Your task to perform on an android device: Show me the alarms in the clock app Image 0: 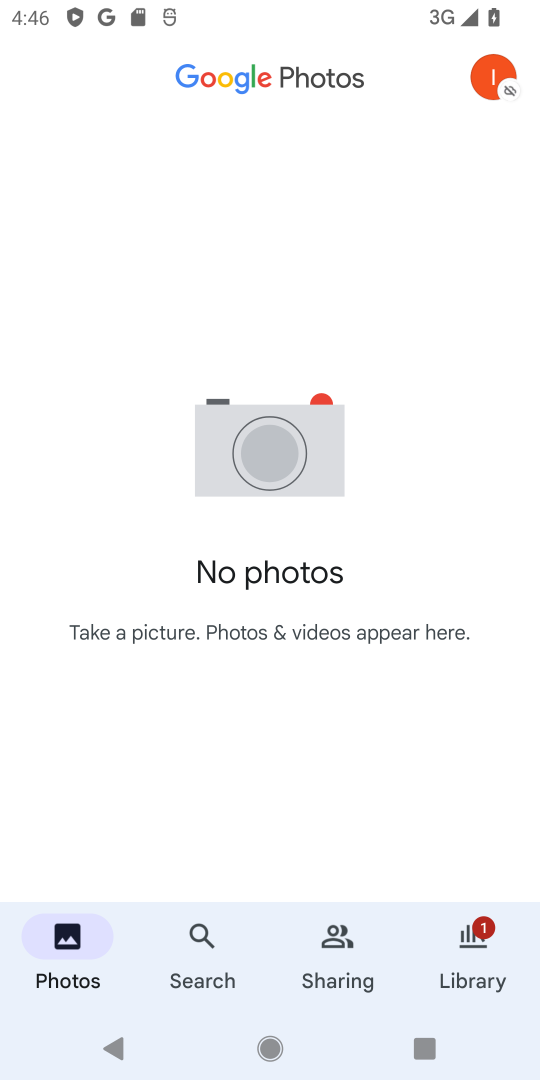
Step 0: press home button
Your task to perform on an android device: Show me the alarms in the clock app Image 1: 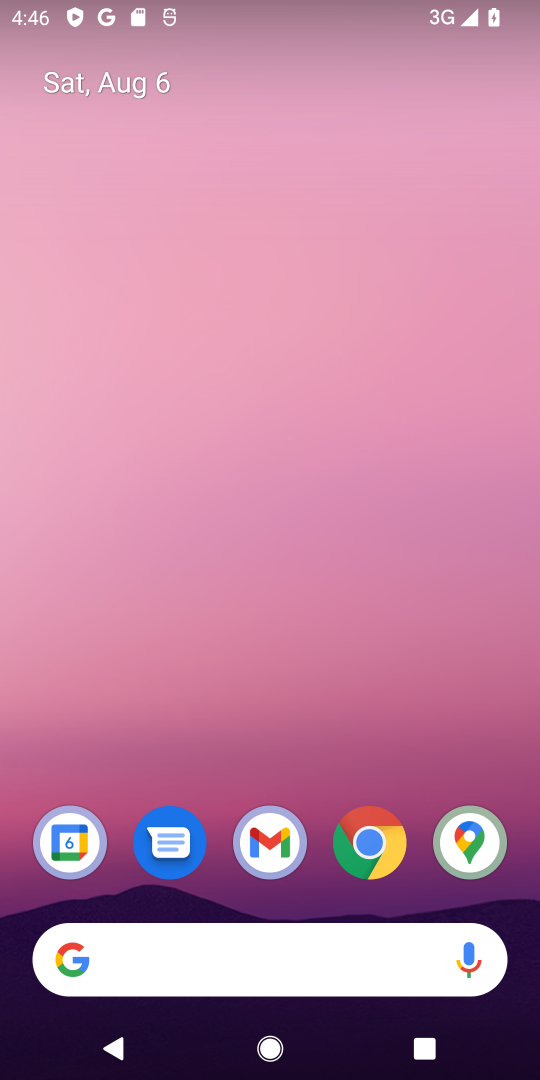
Step 1: drag from (513, 998) to (405, 271)
Your task to perform on an android device: Show me the alarms in the clock app Image 2: 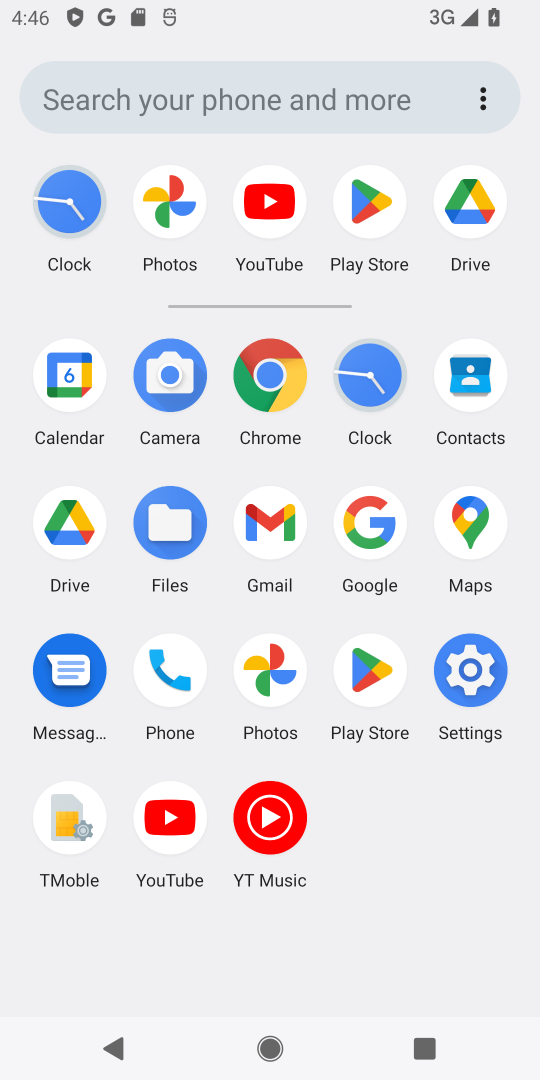
Step 2: click (375, 383)
Your task to perform on an android device: Show me the alarms in the clock app Image 3: 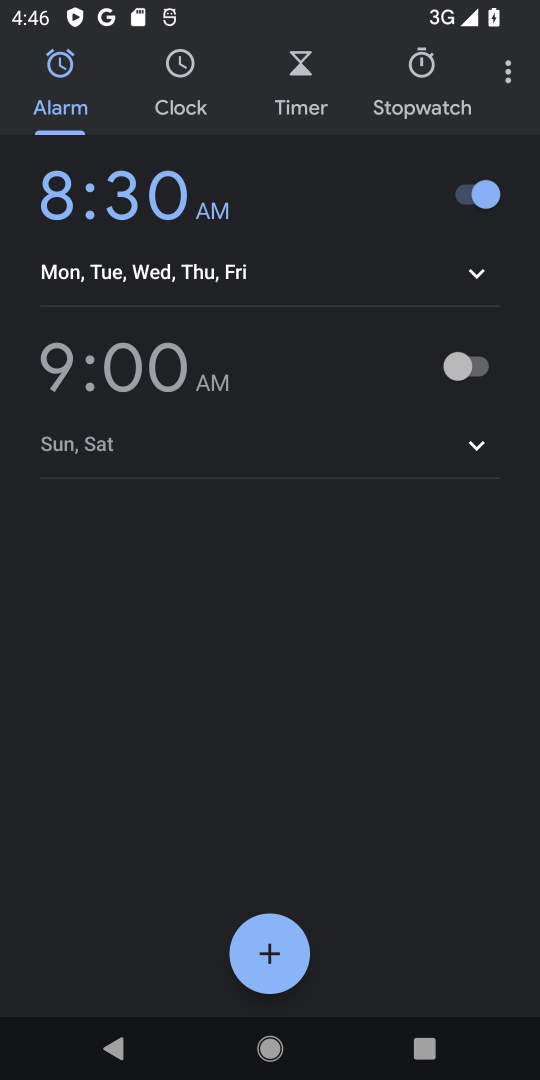
Step 3: click (511, 72)
Your task to perform on an android device: Show me the alarms in the clock app Image 4: 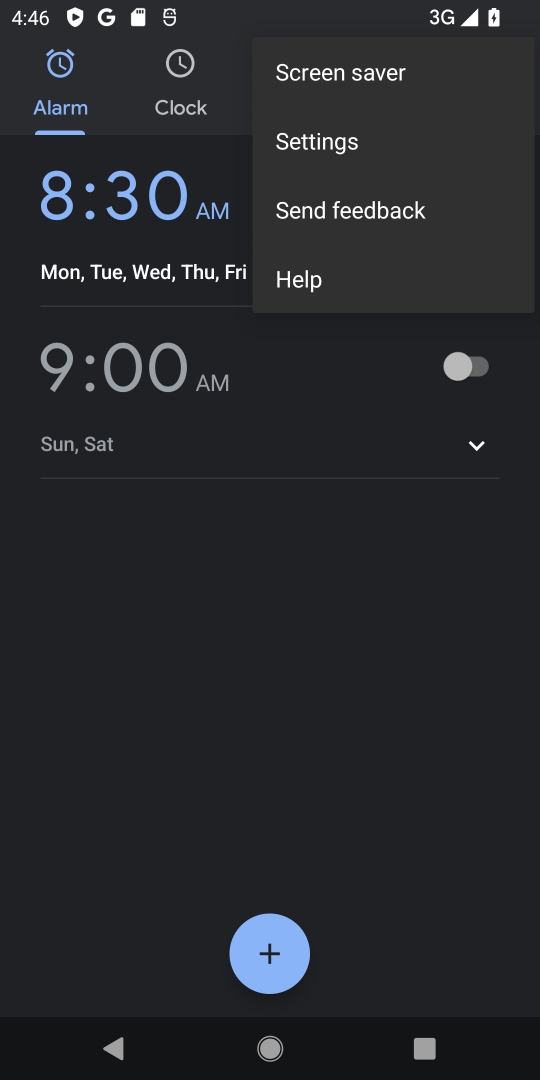
Step 4: click (313, 147)
Your task to perform on an android device: Show me the alarms in the clock app Image 5: 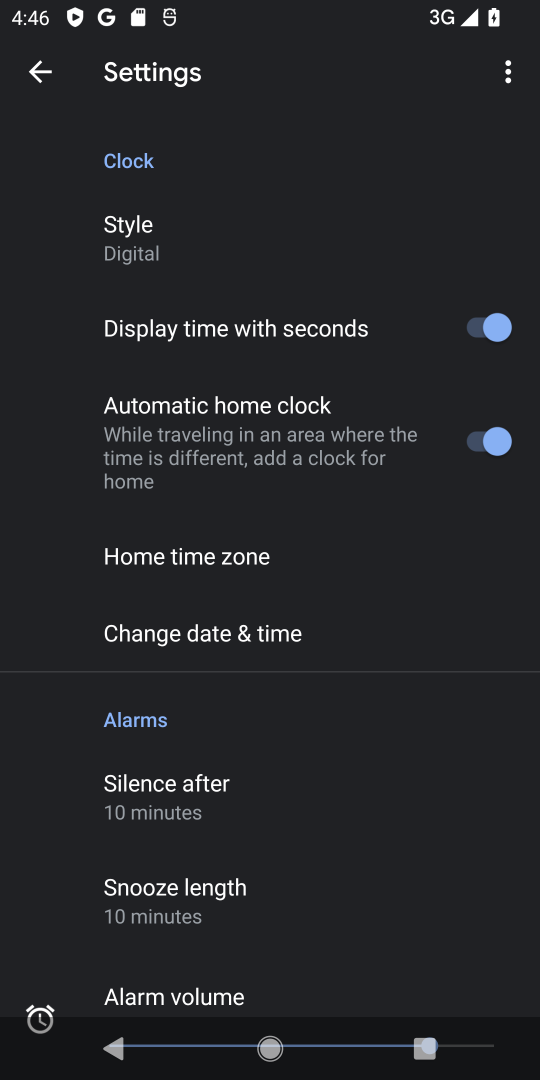
Step 5: click (48, 66)
Your task to perform on an android device: Show me the alarms in the clock app Image 6: 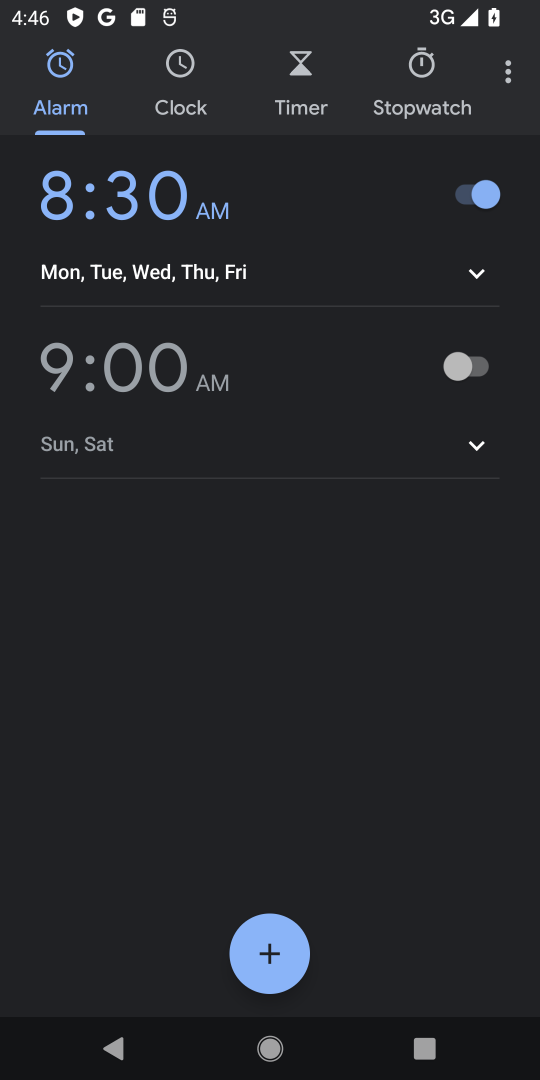
Step 6: task complete